Your task to perform on an android device: Open Google Maps Image 0: 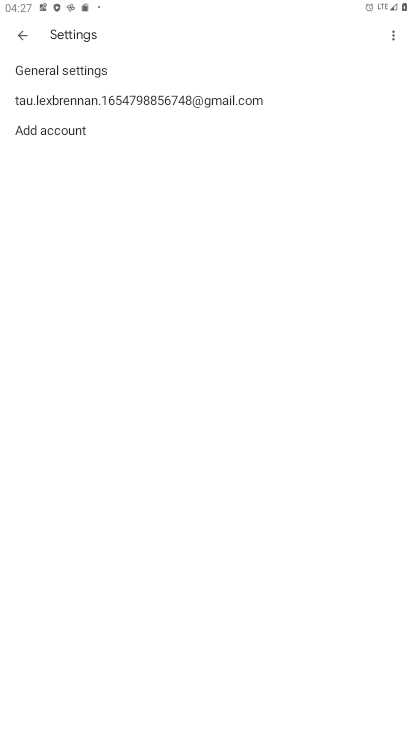
Step 0: press home button
Your task to perform on an android device: Open Google Maps Image 1: 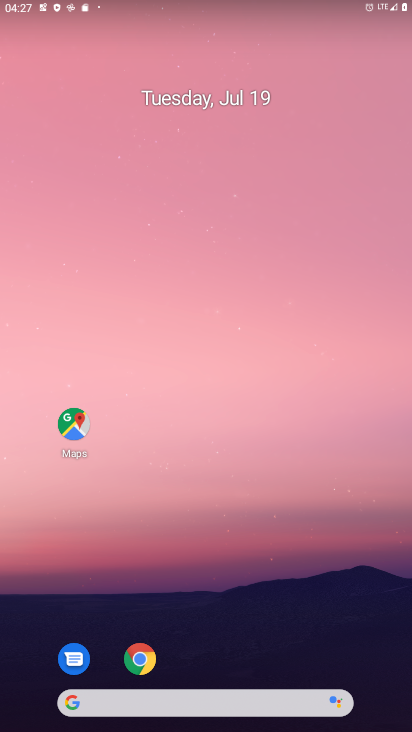
Step 1: click (70, 412)
Your task to perform on an android device: Open Google Maps Image 2: 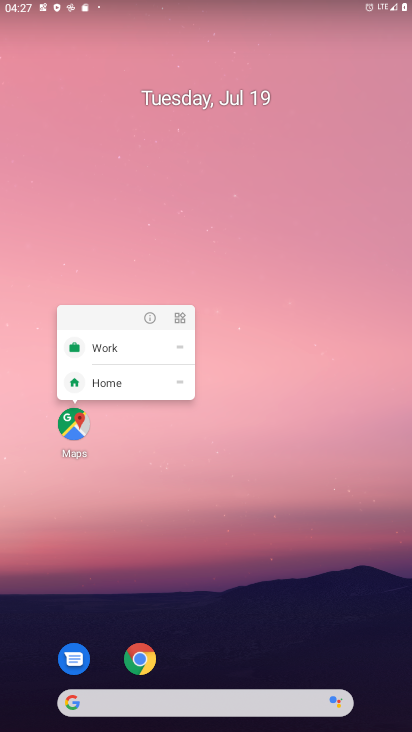
Step 2: click (59, 432)
Your task to perform on an android device: Open Google Maps Image 3: 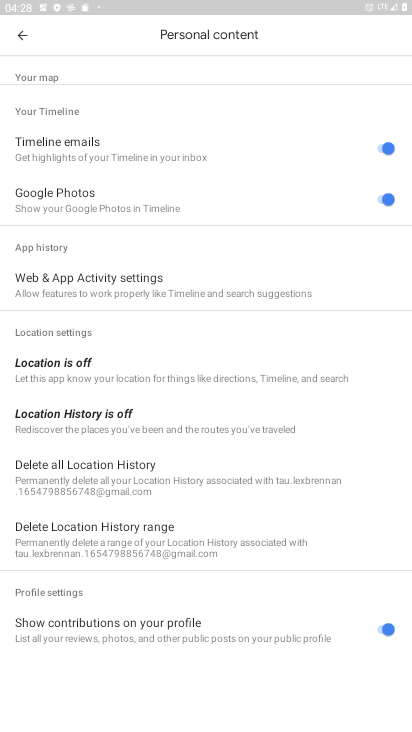
Step 3: task complete